Your task to perform on an android device: toggle notification dots Image 0: 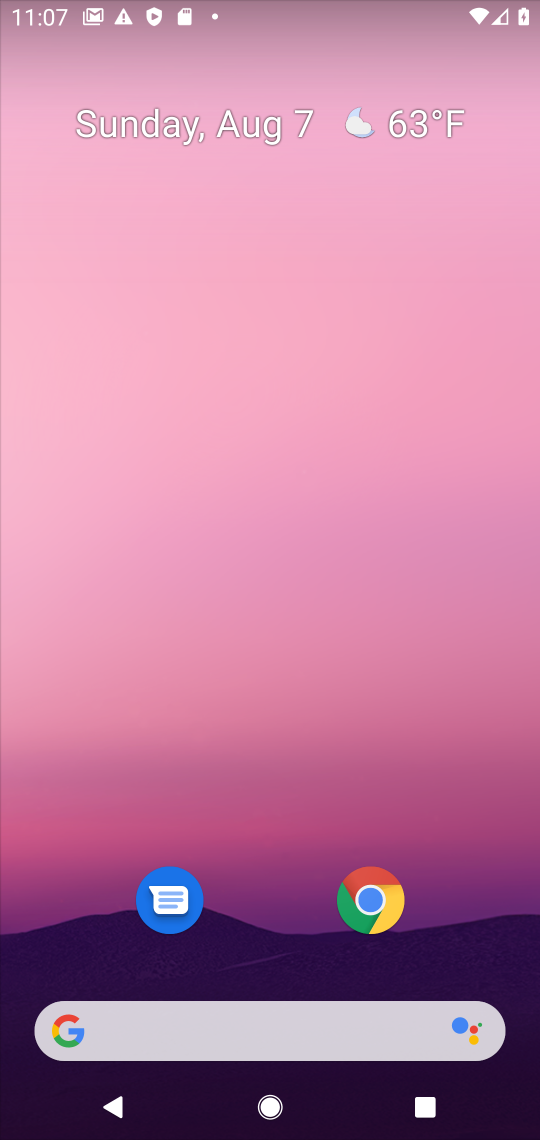
Step 0: drag from (286, 391) to (286, 246)
Your task to perform on an android device: toggle notification dots Image 1: 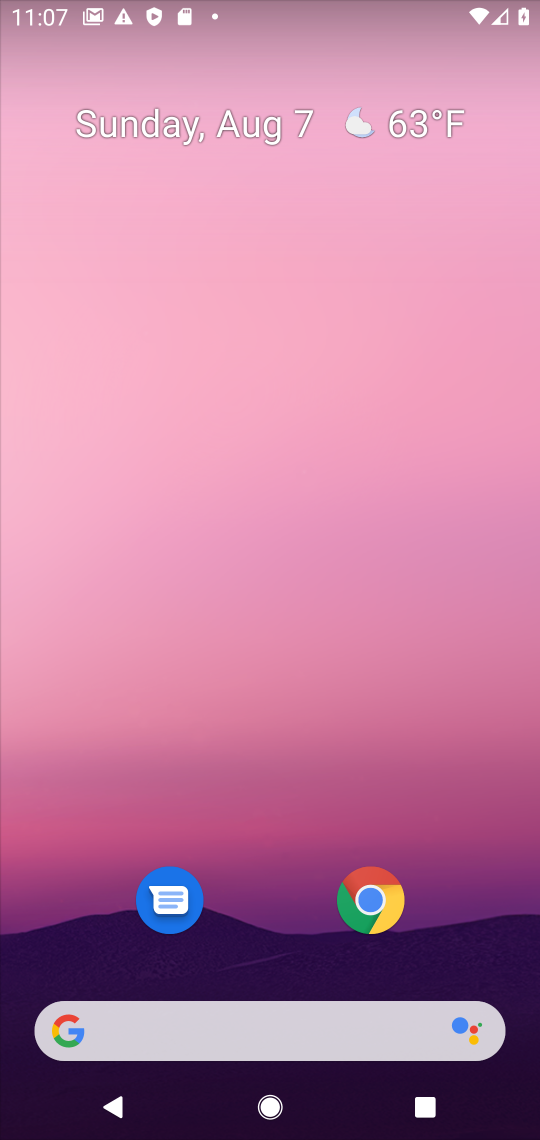
Step 1: drag from (284, 964) to (263, 3)
Your task to perform on an android device: toggle notification dots Image 2: 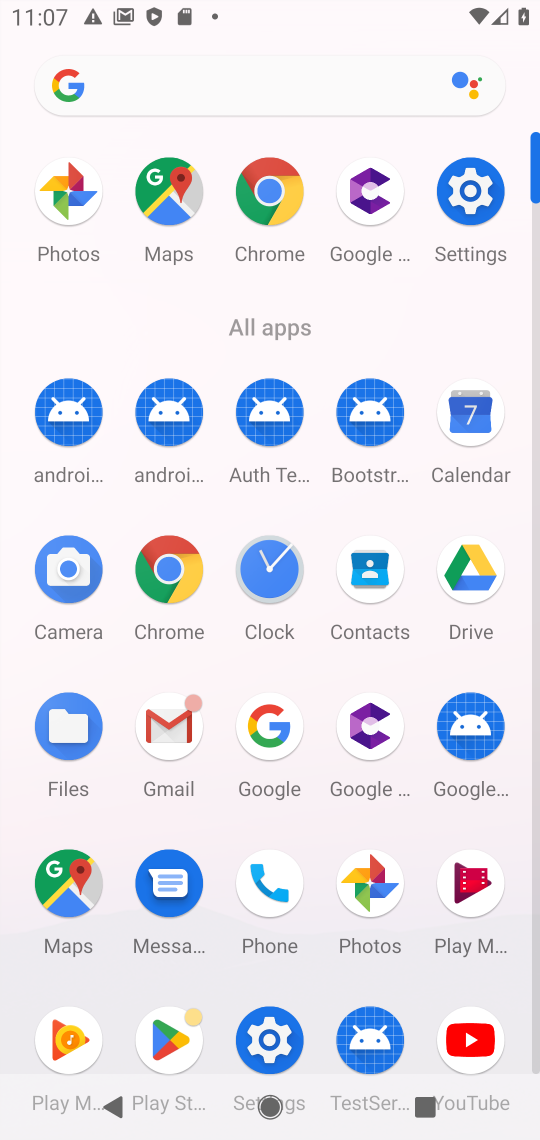
Step 2: click (471, 182)
Your task to perform on an android device: toggle notification dots Image 3: 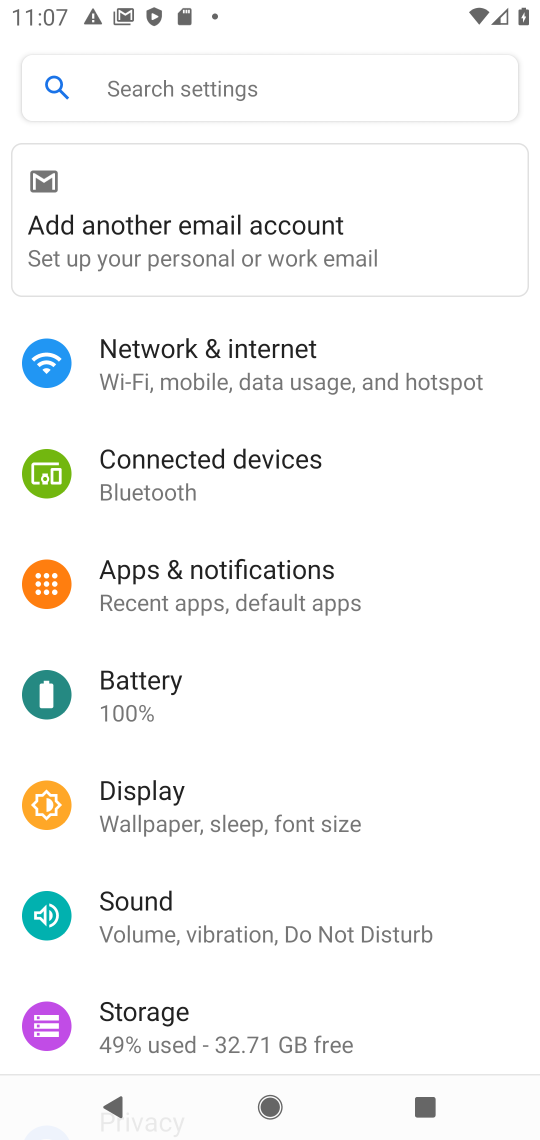
Step 3: click (308, 569)
Your task to perform on an android device: toggle notification dots Image 4: 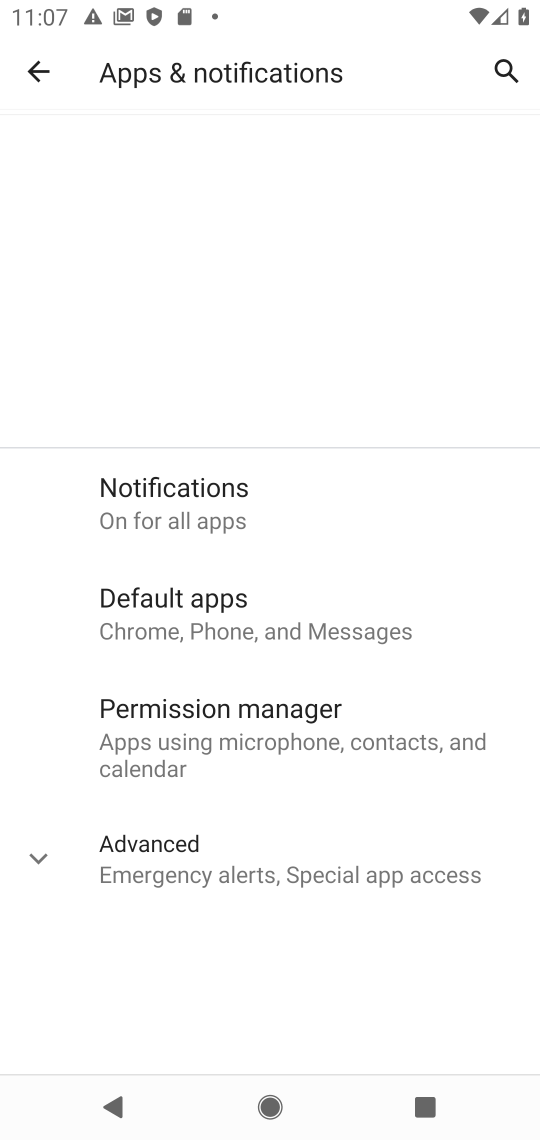
Step 4: click (273, 488)
Your task to perform on an android device: toggle notification dots Image 5: 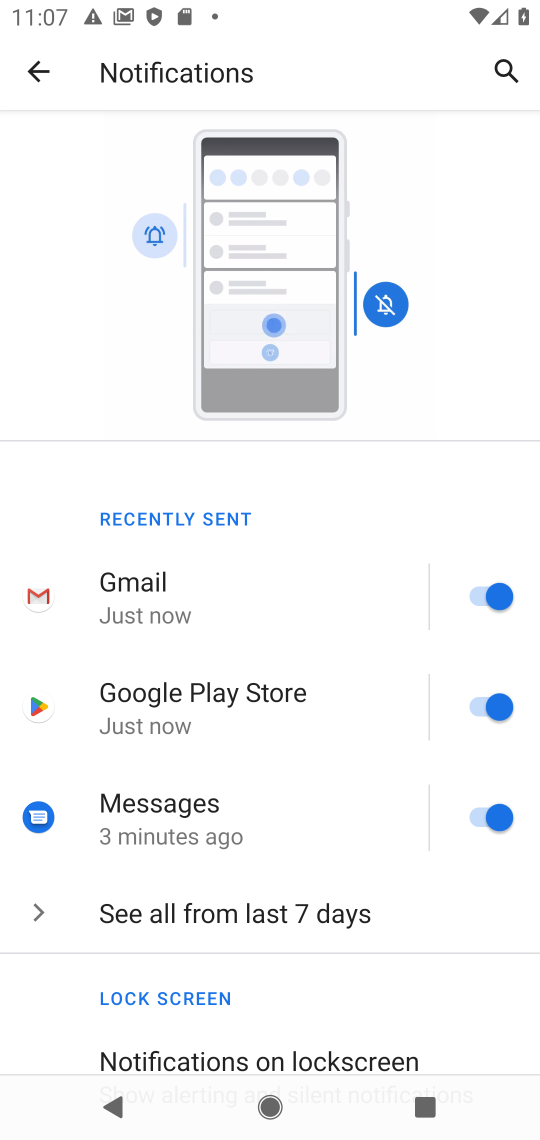
Step 5: drag from (372, 986) to (408, 425)
Your task to perform on an android device: toggle notification dots Image 6: 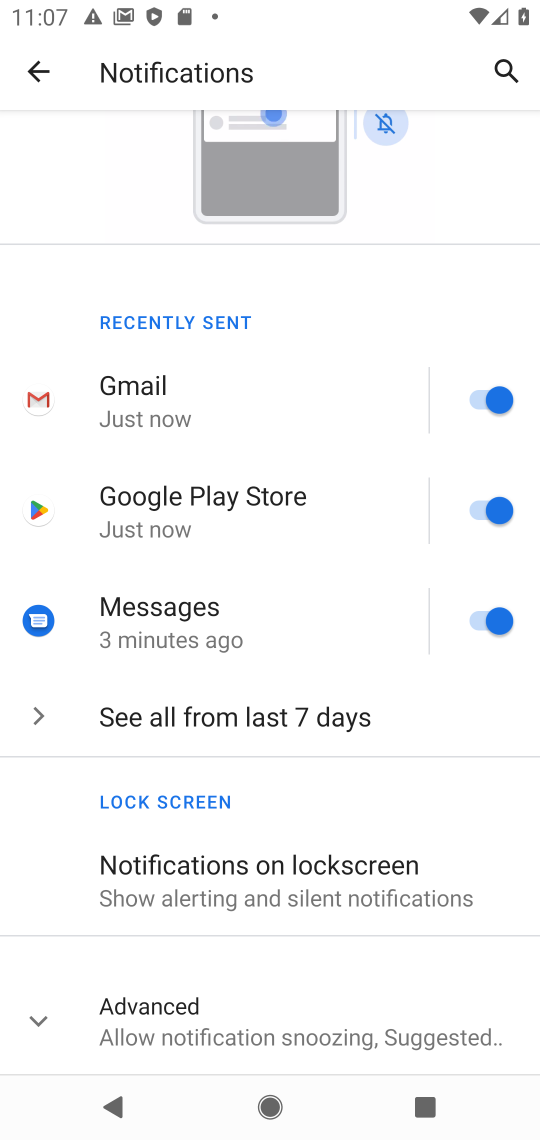
Step 6: click (38, 1012)
Your task to perform on an android device: toggle notification dots Image 7: 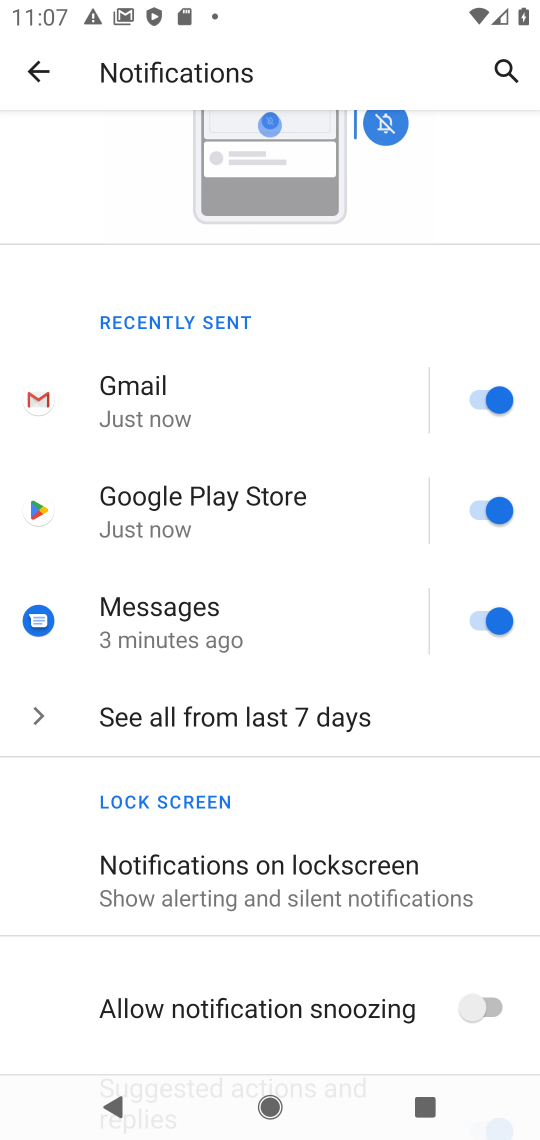
Step 7: drag from (239, 1017) to (297, 197)
Your task to perform on an android device: toggle notification dots Image 8: 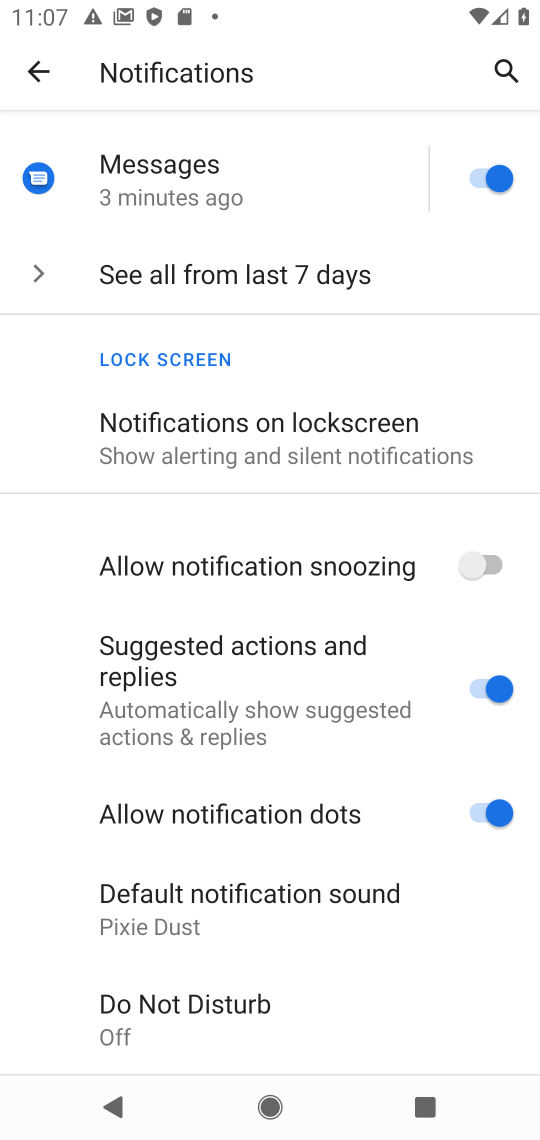
Step 8: click (476, 810)
Your task to perform on an android device: toggle notification dots Image 9: 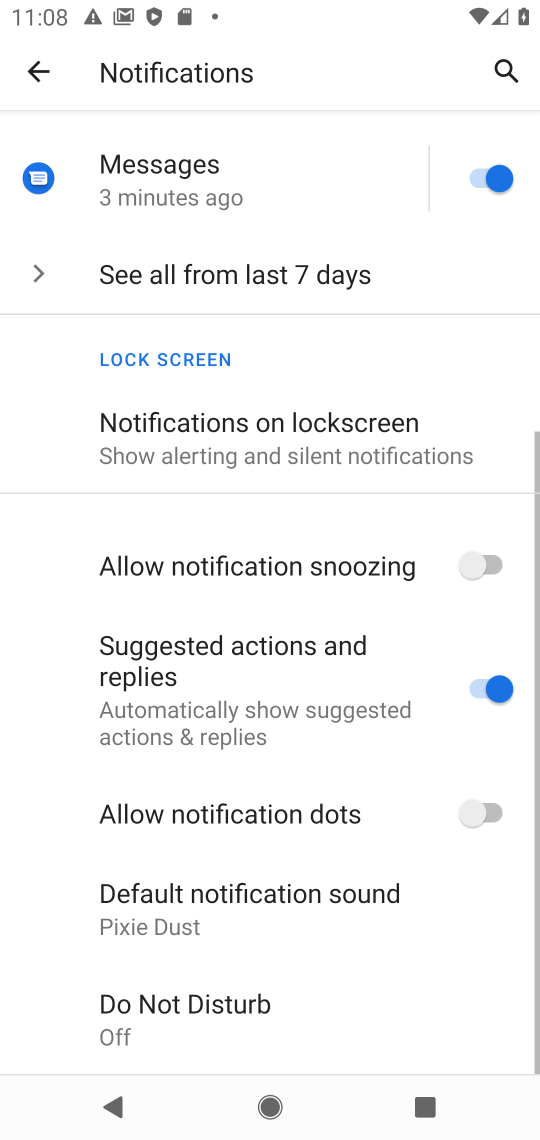
Step 9: task complete